Your task to perform on an android device: change notifications settings Image 0: 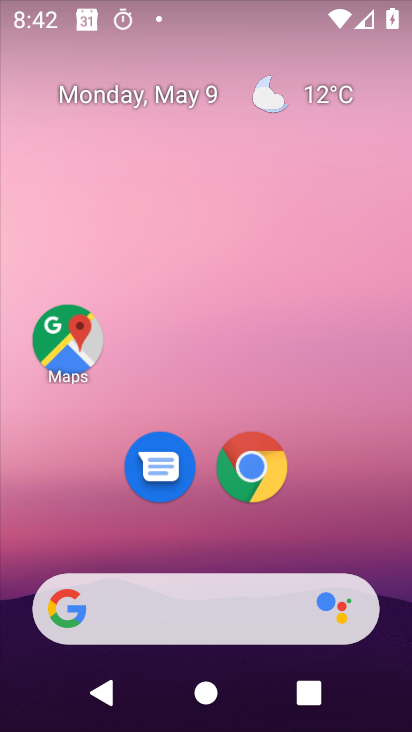
Step 0: drag from (376, 568) to (340, 12)
Your task to perform on an android device: change notifications settings Image 1: 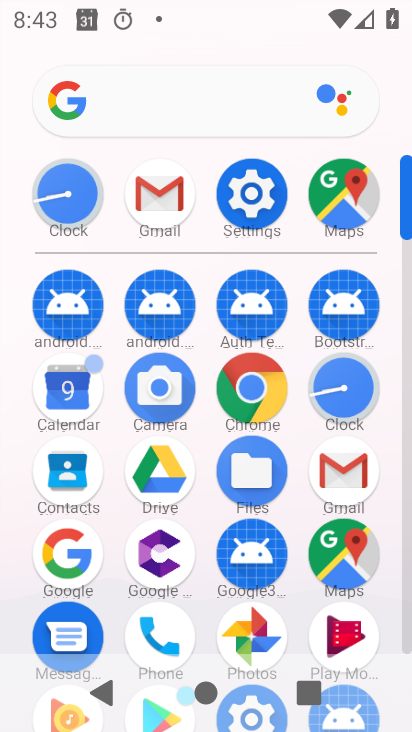
Step 1: click (252, 218)
Your task to perform on an android device: change notifications settings Image 2: 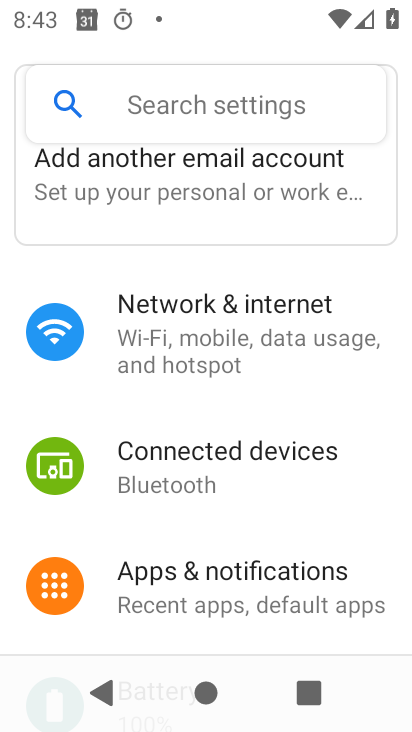
Step 2: click (197, 576)
Your task to perform on an android device: change notifications settings Image 3: 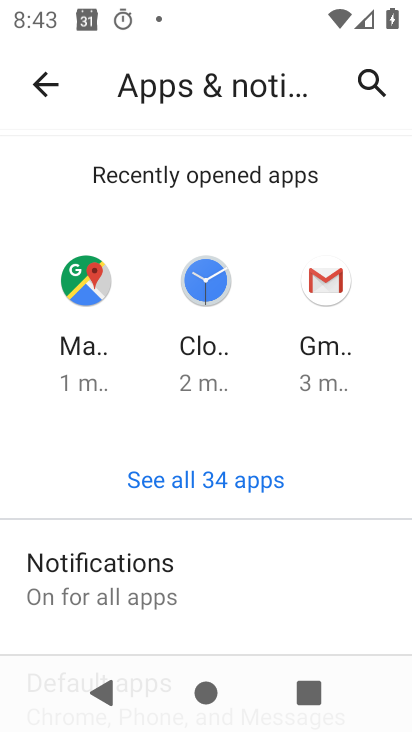
Step 3: click (138, 561)
Your task to perform on an android device: change notifications settings Image 4: 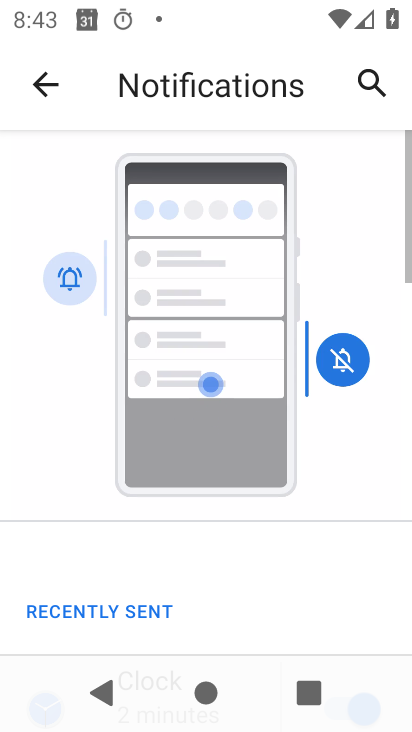
Step 4: drag from (199, 610) to (170, 221)
Your task to perform on an android device: change notifications settings Image 5: 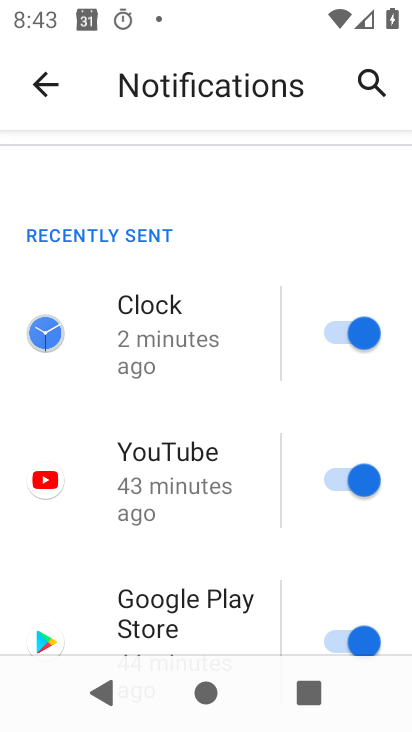
Step 5: drag from (166, 569) to (175, 190)
Your task to perform on an android device: change notifications settings Image 6: 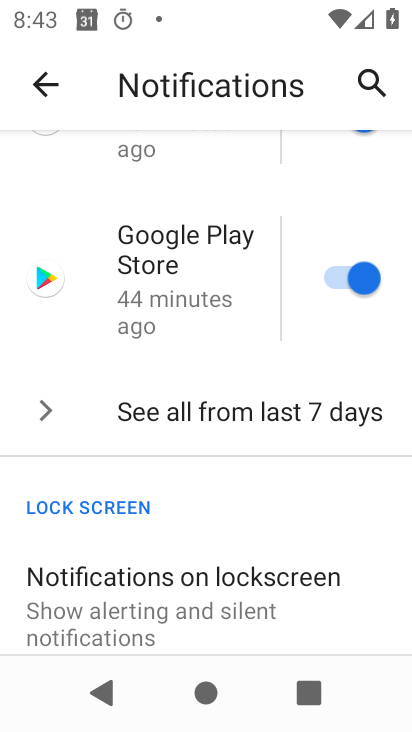
Step 6: drag from (154, 433) to (159, 204)
Your task to perform on an android device: change notifications settings Image 7: 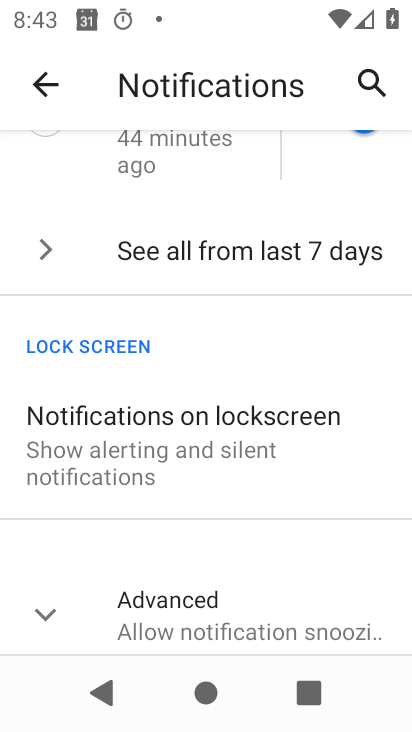
Step 7: click (221, 259)
Your task to perform on an android device: change notifications settings Image 8: 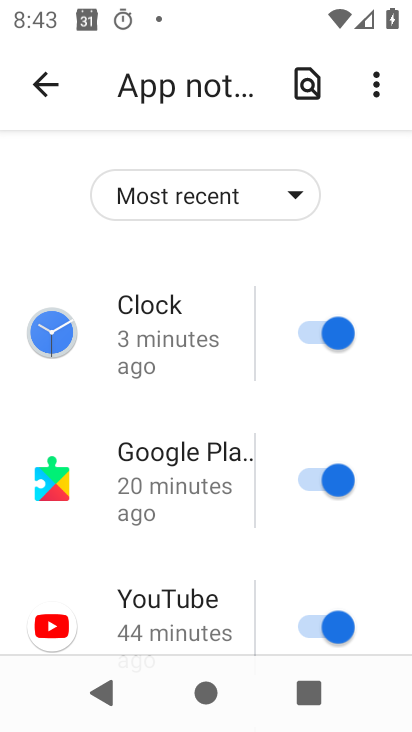
Step 8: click (300, 191)
Your task to perform on an android device: change notifications settings Image 9: 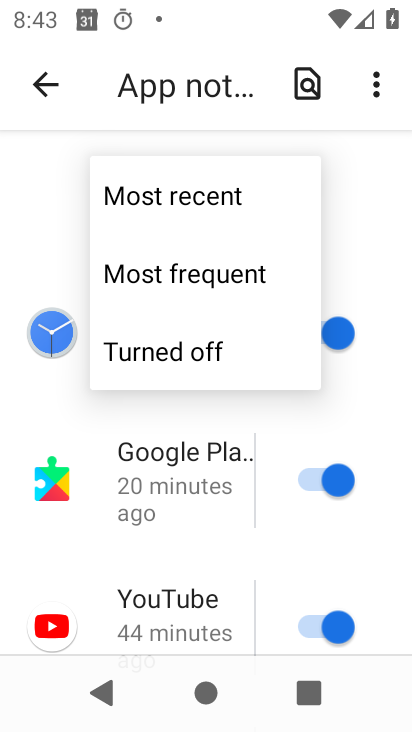
Step 9: click (164, 270)
Your task to perform on an android device: change notifications settings Image 10: 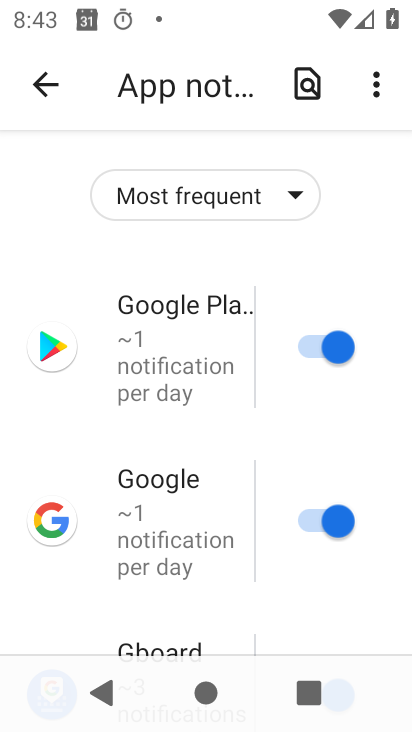
Step 10: task complete